Your task to perform on an android device: turn off notifications in google photos Image 0: 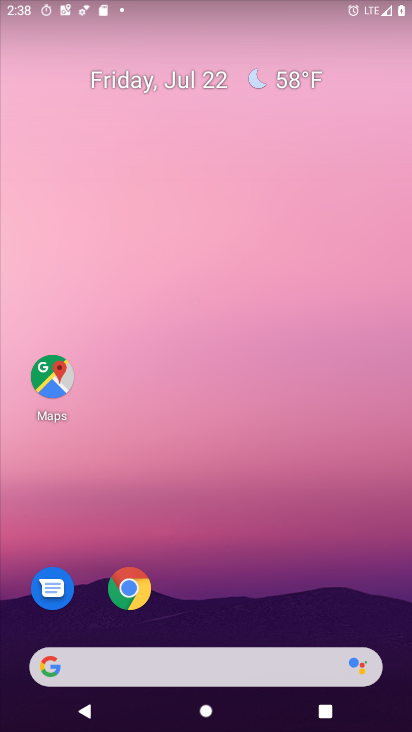
Step 0: drag from (300, 556) to (327, 85)
Your task to perform on an android device: turn off notifications in google photos Image 1: 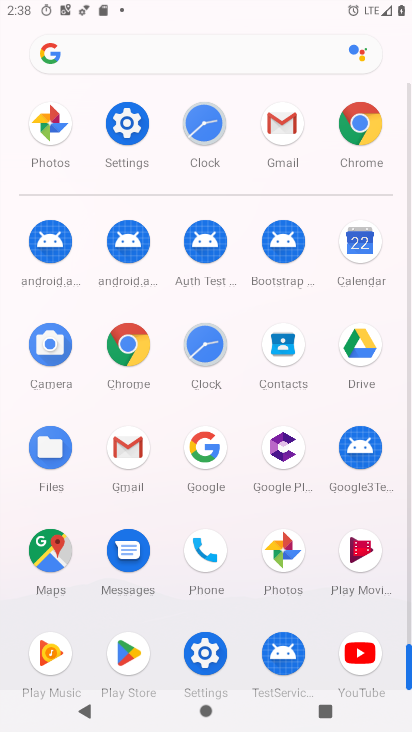
Step 1: click (287, 553)
Your task to perform on an android device: turn off notifications in google photos Image 2: 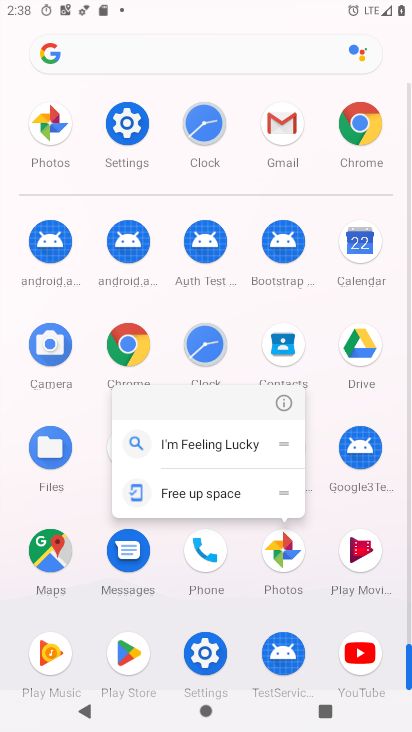
Step 2: click (279, 402)
Your task to perform on an android device: turn off notifications in google photos Image 3: 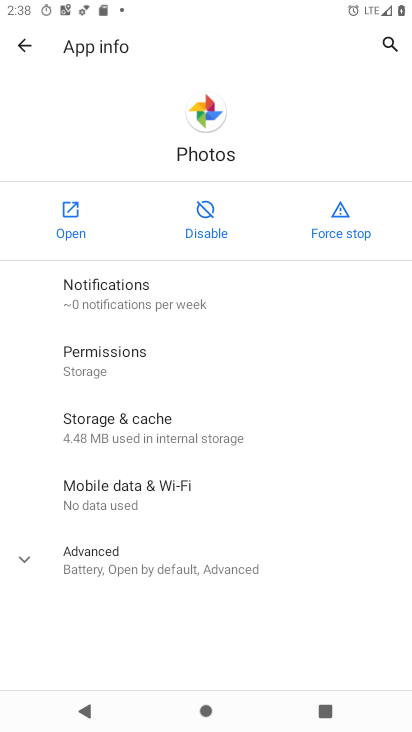
Step 3: click (128, 293)
Your task to perform on an android device: turn off notifications in google photos Image 4: 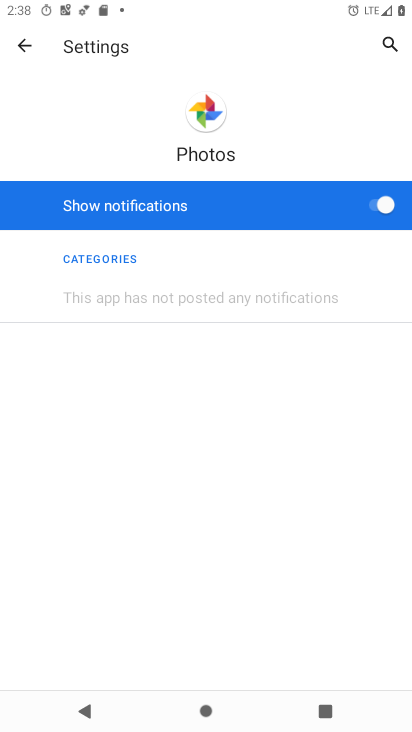
Step 4: click (299, 212)
Your task to perform on an android device: turn off notifications in google photos Image 5: 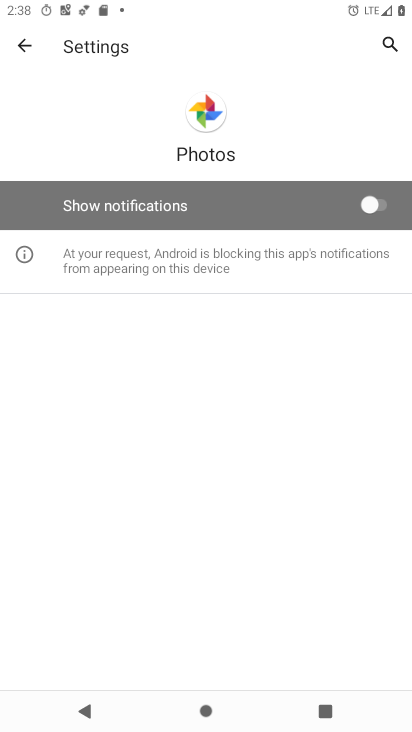
Step 5: task complete